Your task to perform on an android device: stop showing notifications on the lock screen Image 0: 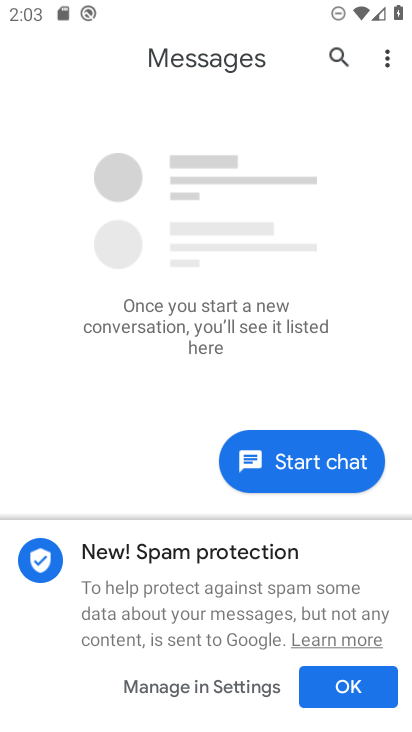
Step 0: press home button
Your task to perform on an android device: stop showing notifications on the lock screen Image 1: 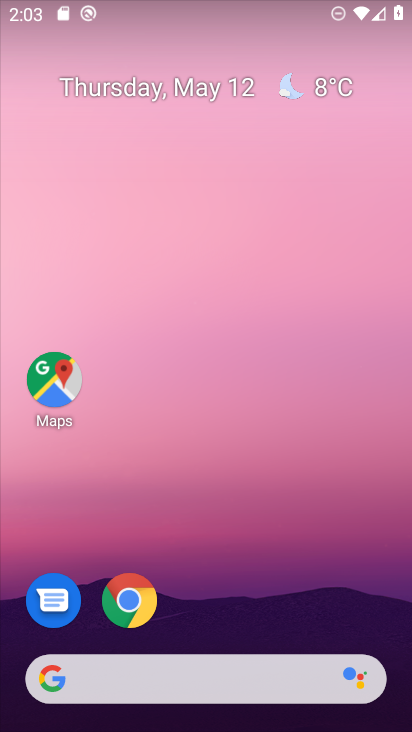
Step 1: drag from (192, 731) to (194, 161)
Your task to perform on an android device: stop showing notifications on the lock screen Image 2: 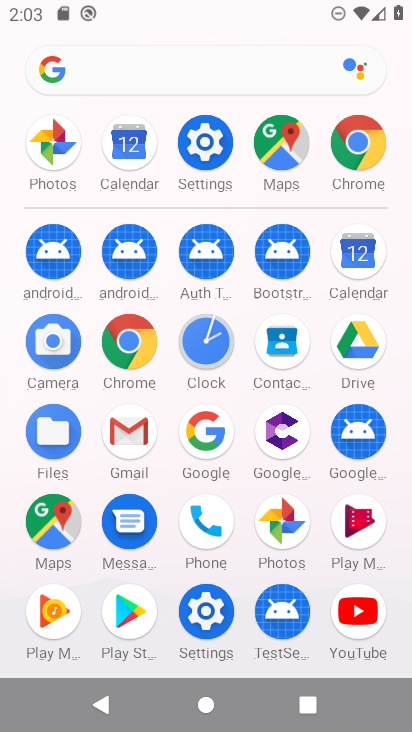
Step 2: click (209, 143)
Your task to perform on an android device: stop showing notifications on the lock screen Image 3: 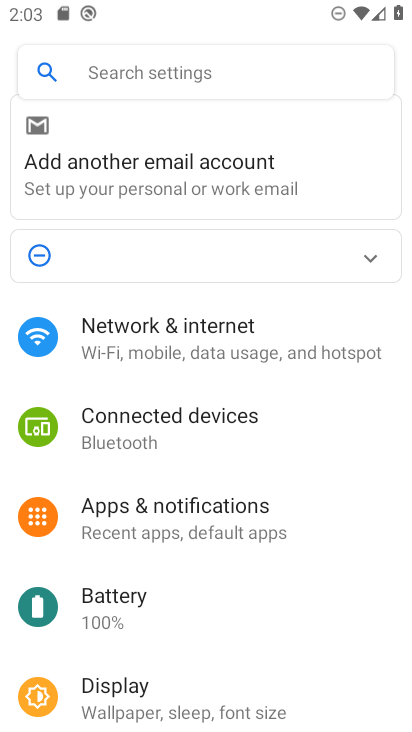
Step 3: click (154, 514)
Your task to perform on an android device: stop showing notifications on the lock screen Image 4: 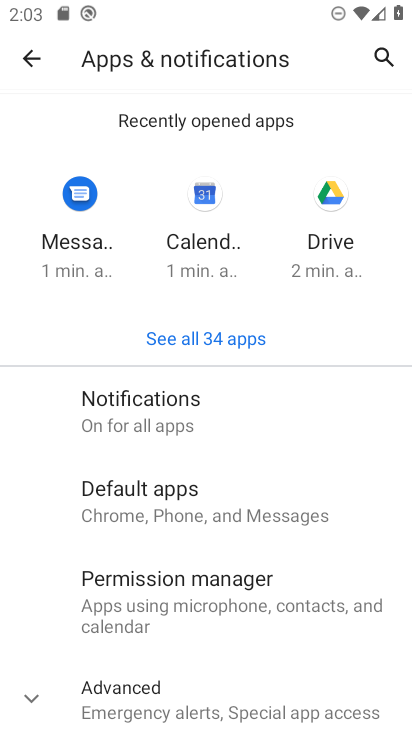
Step 4: click (141, 412)
Your task to perform on an android device: stop showing notifications on the lock screen Image 5: 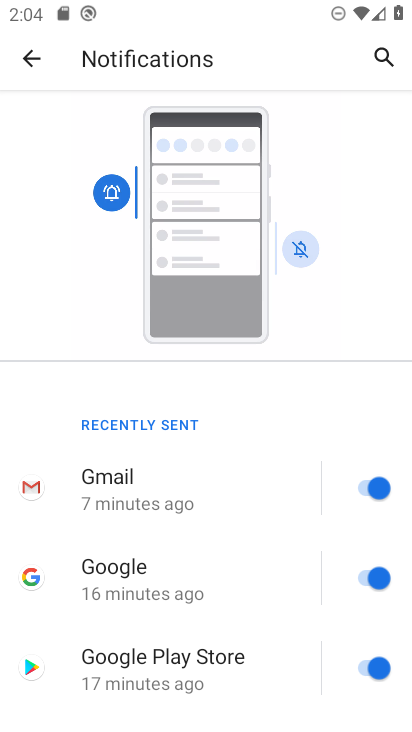
Step 5: drag from (140, 679) to (143, 217)
Your task to perform on an android device: stop showing notifications on the lock screen Image 6: 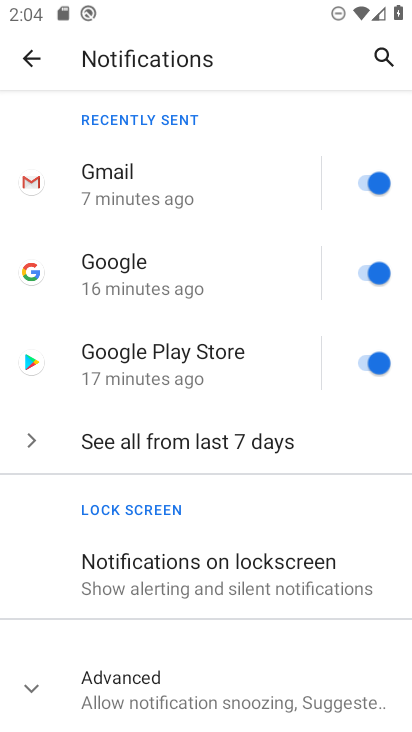
Step 6: click (169, 575)
Your task to perform on an android device: stop showing notifications on the lock screen Image 7: 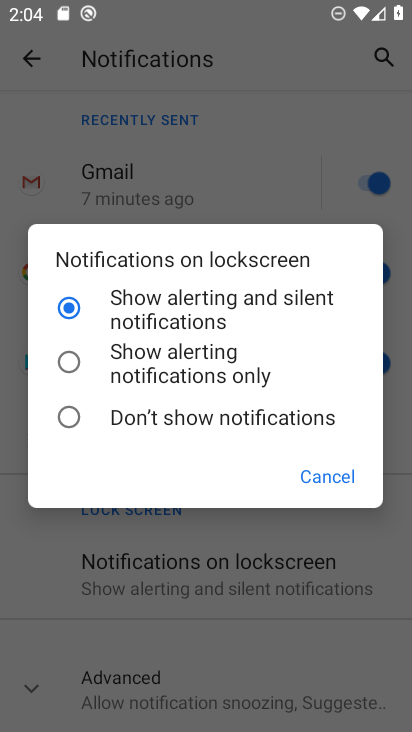
Step 7: click (69, 421)
Your task to perform on an android device: stop showing notifications on the lock screen Image 8: 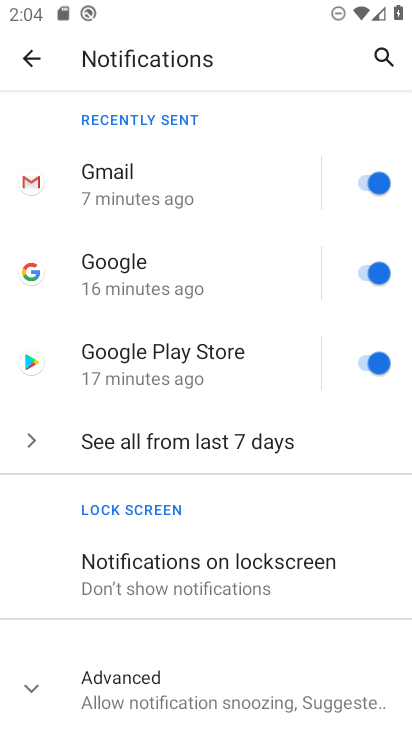
Step 8: task complete